Your task to perform on an android device: What's a goodrestaurant in Austin? Image 0: 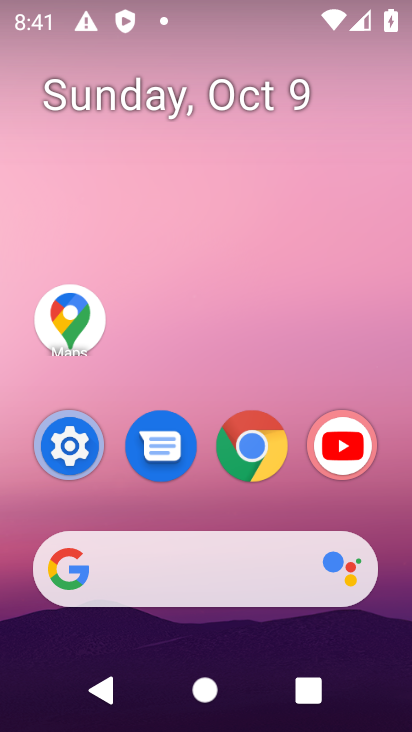
Step 0: click (262, 459)
Your task to perform on an android device: What's a goodrestaurant in Austin? Image 1: 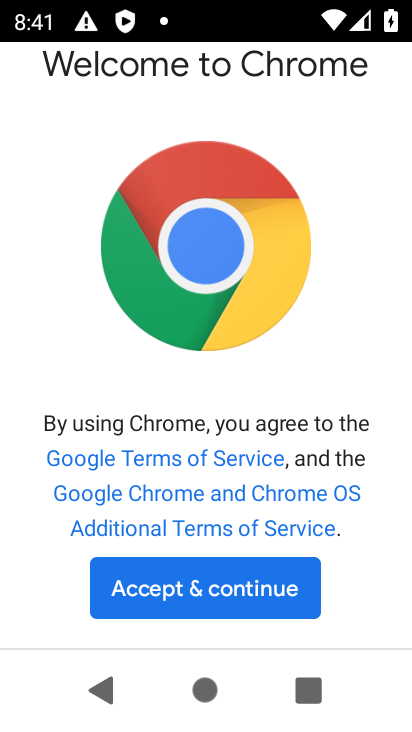
Step 1: click (183, 583)
Your task to perform on an android device: What's a goodrestaurant in Austin? Image 2: 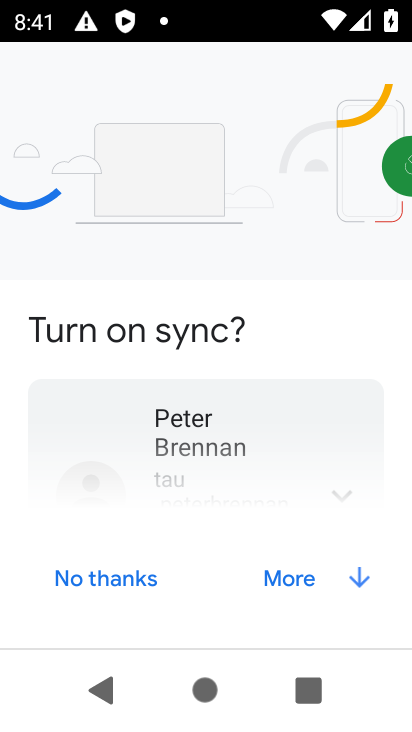
Step 2: click (113, 587)
Your task to perform on an android device: What's a goodrestaurant in Austin? Image 3: 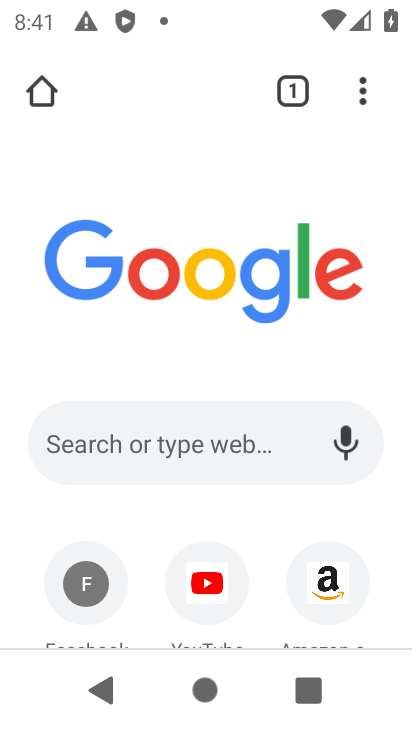
Step 3: click (188, 453)
Your task to perform on an android device: What's a goodrestaurant in Austin? Image 4: 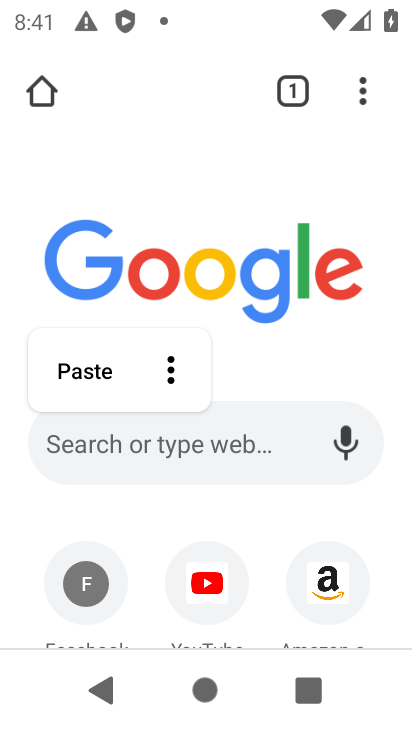
Step 4: type "goodrestaurant in Austin"
Your task to perform on an android device: What's a goodrestaurant in Austin? Image 5: 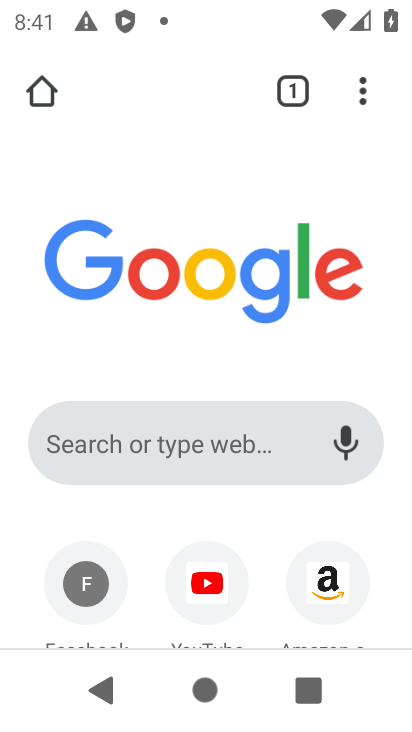
Step 5: type ""
Your task to perform on an android device: What's a goodrestaurant in Austin? Image 6: 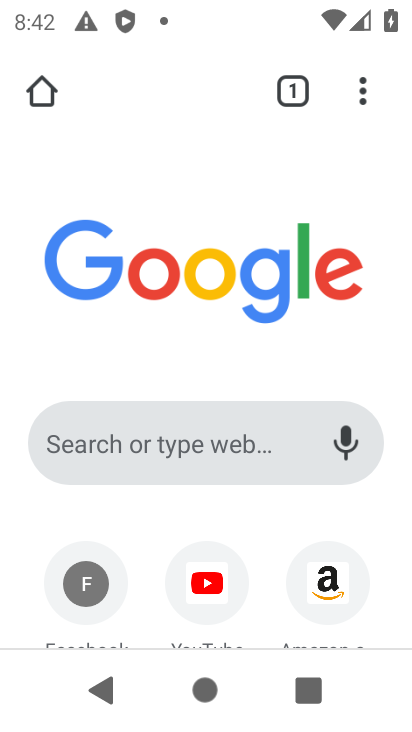
Step 6: click (139, 452)
Your task to perform on an android device: What's a goodrestaurant in Austin? Image 7: 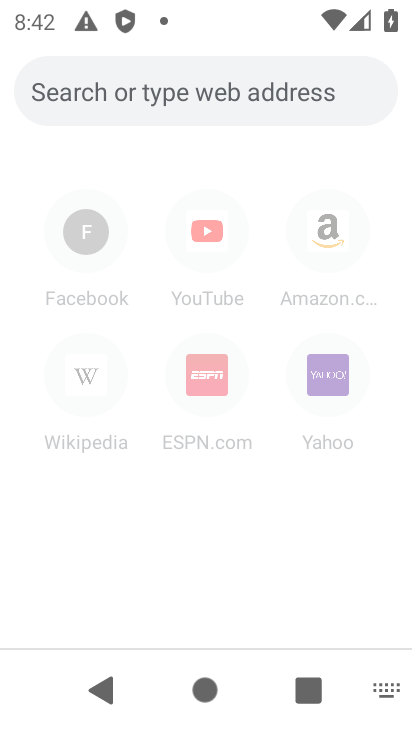
Step 7: click (139, 452)
Your task to perform on an android device: What's a goodrestaurant in Austin? Image 8: 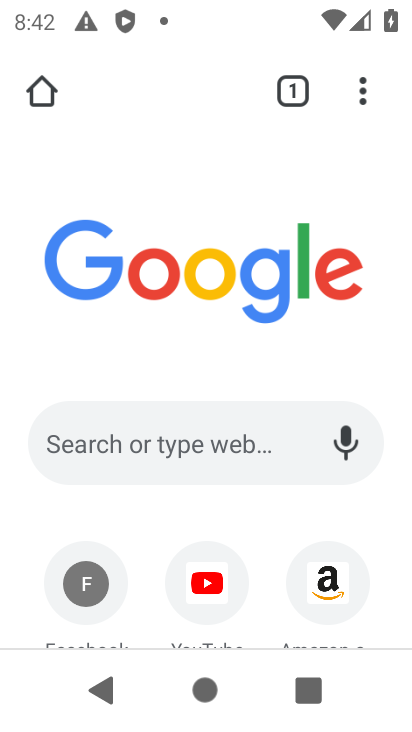
Step 8: click (146, 439)
Your task to perform on an android device: What's a goodrestaurant in Austin? Image 9: 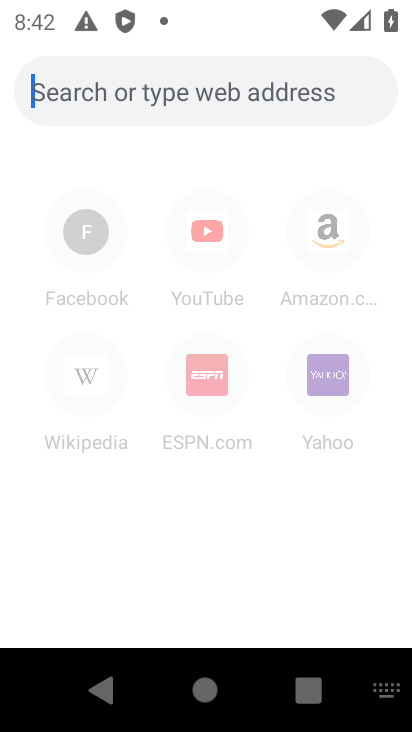
Step 9: type "goodrestaurant in Austin"
Your task to perform on an android device: What's a goodrestaurant in Austin? Image 10: 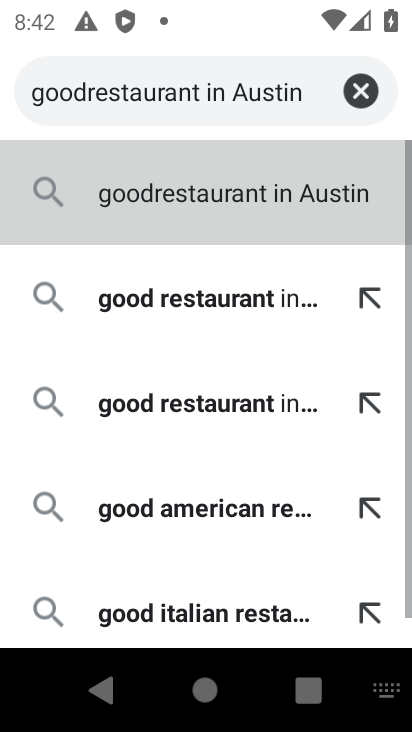
Step 10: type ""
Your task to perform on an android device: What's a goodrestaurant in Austin? Image 11: 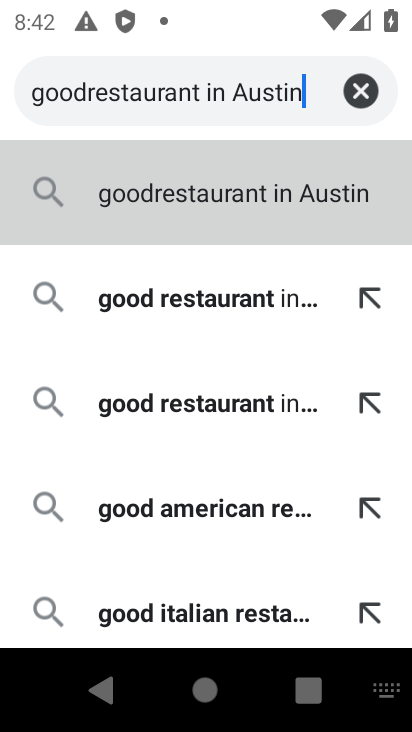
Step 11: click (170, 197)
Your task to perform on an android device: What's a goodrestaurant in Austin? Image 12: 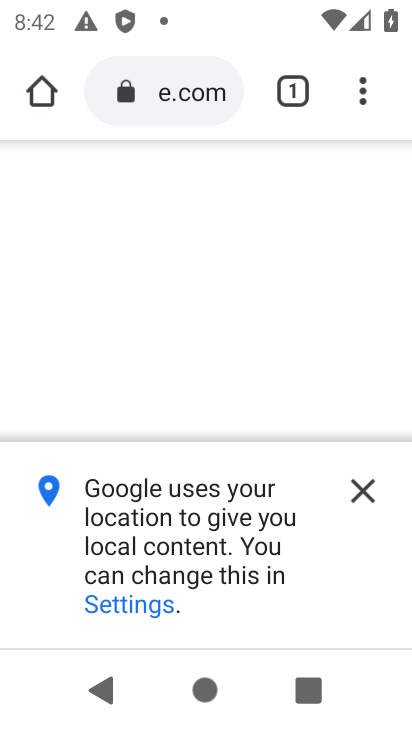
Step 12: click (367, 490)
Your task to perform on an android device: What's a goodrestaurant in Austin? Image 13: 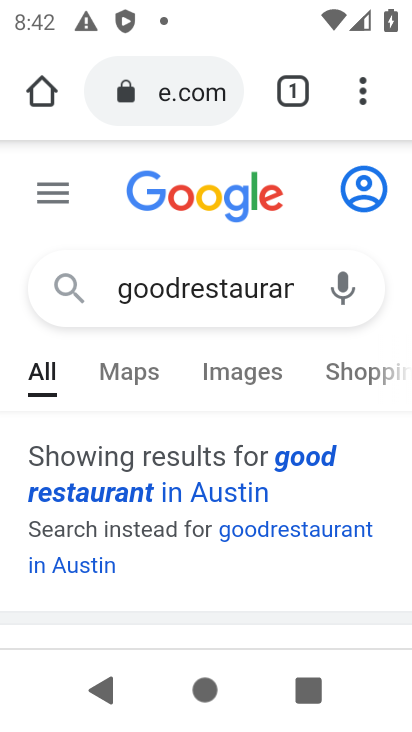
Step 13: drag from (299, 572) to (280, 219)
Your task to perform on an android device: What's a goodrestaurant in Austin? Image 14: 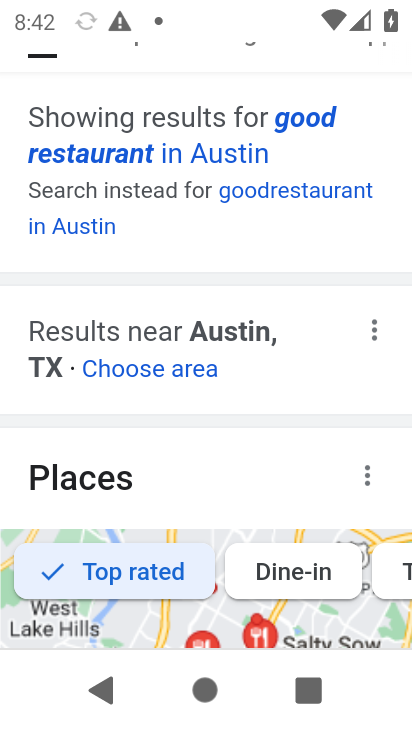
Step 14: drag from (279, 448) to (320, 204)
Your task to perform on an android device: What's a goodrestaurant in Austin? Image 15: 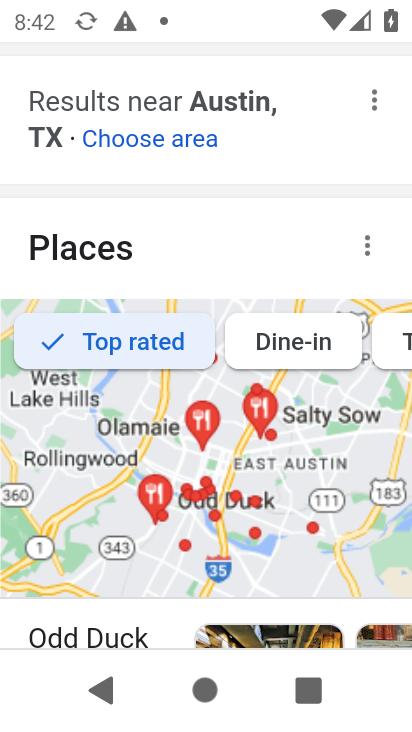
Step 15: drag from (320, 605) to (297, 108)
Your task to perform on an android device: What's a goodrestaurant in Austin? Image 16: 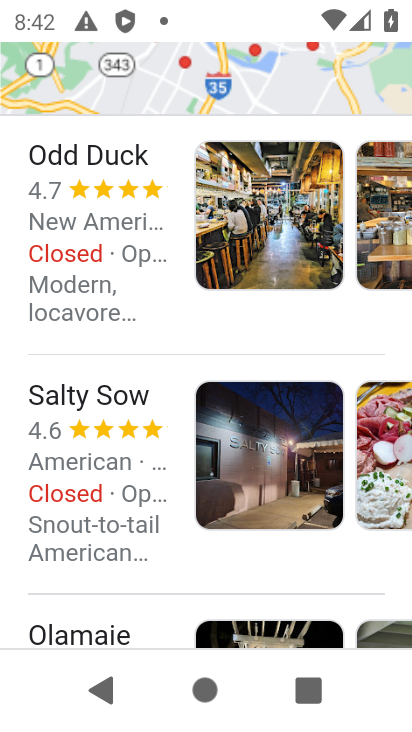
Step 16: drag from (217, 589) to (213, 445)
Your task to perform on an android device: What's a goodrestaurant in Austin? Image 17: 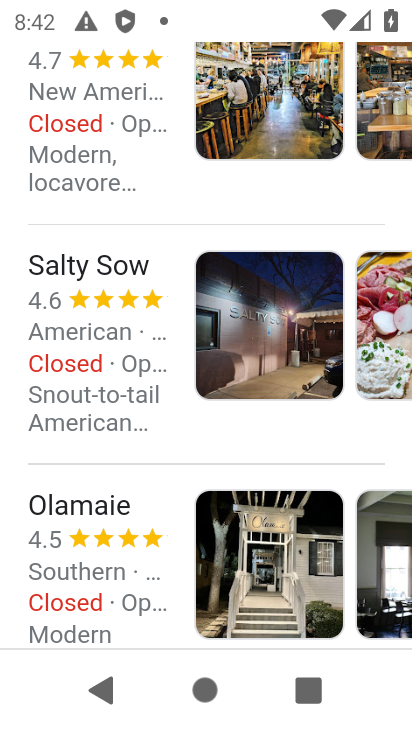
Step 17: drag from (167, 505) to (142, 165)
Your task to perform on an android device: What's a goodrestaurant in Austin? Image 18: 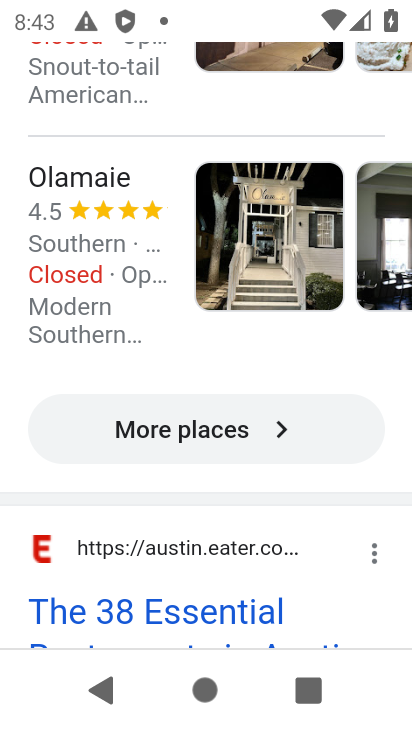
Step 18: click (251, 425)
Your task to perform on an android device: What's a goodrestaurant in Austin? Image 19: 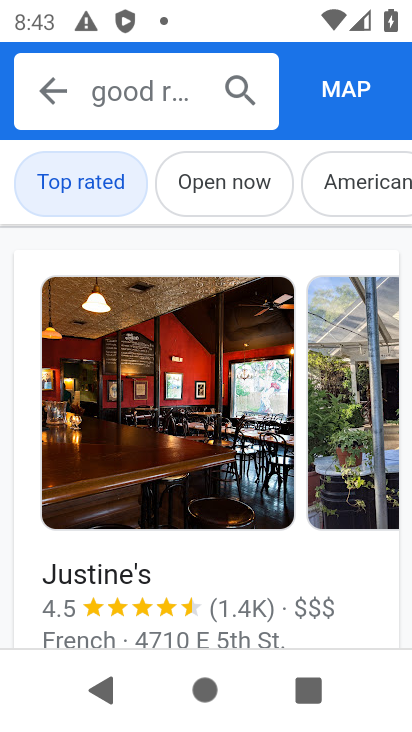
Step 19: task complete